Your task to perform on an android device: find photos in the google photos app Image 0: 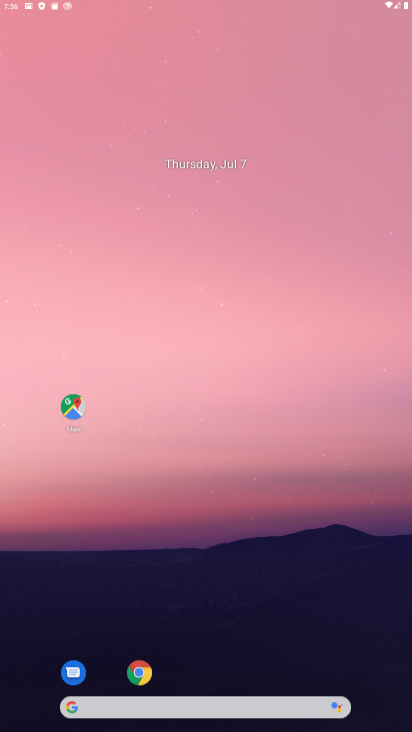
Step 0: drag from (227, 505) to (260, 145)
Your task to perform on an android device: find photos in the google photos app Image 1: 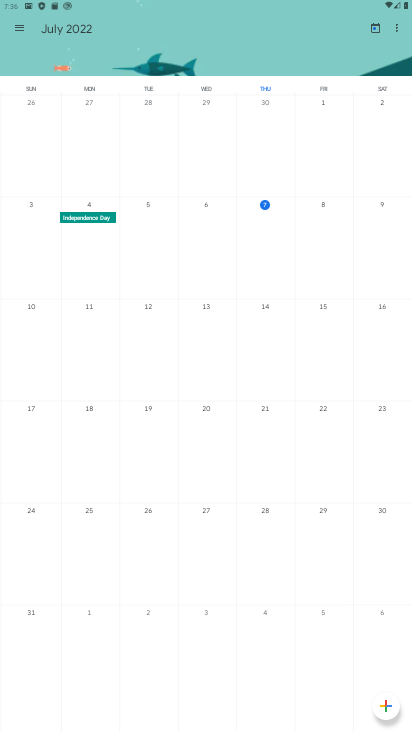
Step 1: press home button
Your task to perform on an android device: find photos in the google photos app Image 2: 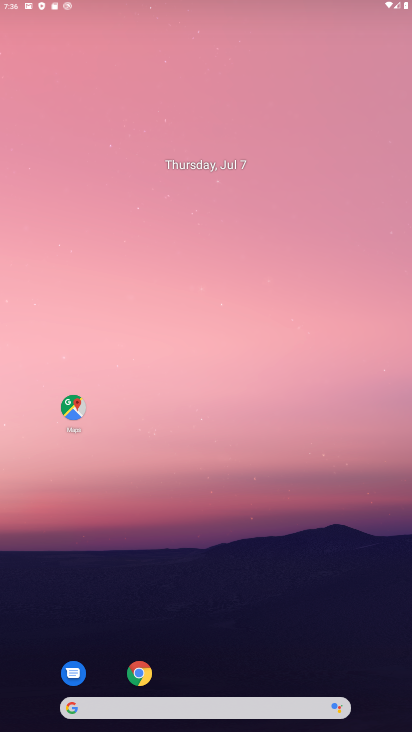
Step 2: drag from (245, 676) to (311, 172)
Your task to perform on an android device: find photos in the google photos app Image 3: 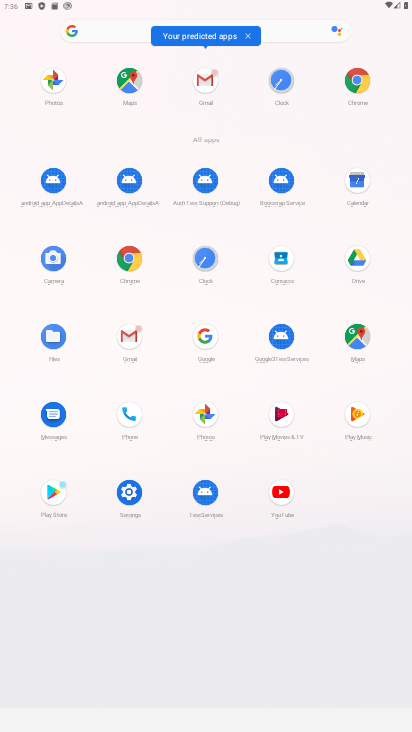
Step 3: click (211, 411)
Your task to perform on an android device: find photos in the google photos app Image 4: 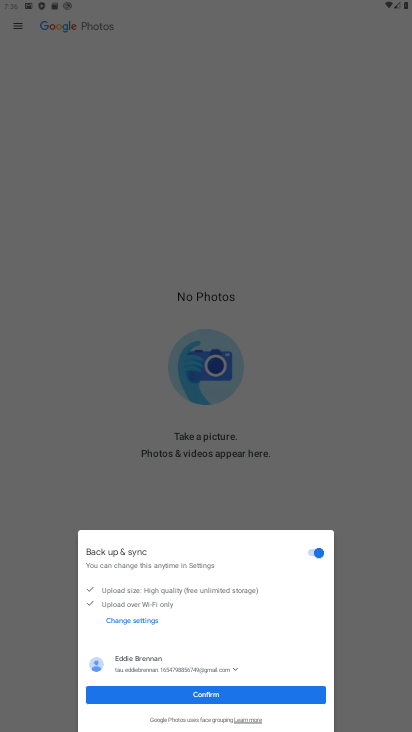
Step 4: click (245, 694)
Your task to perform on an android device: find photos in the google photos app Image 5: 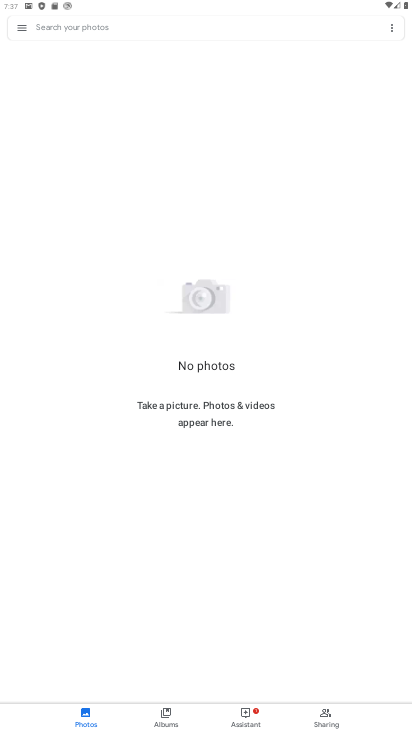
Step 5: task complete